Your task to perform on an android device: turn vacation reply on in the gmail app Image 0: 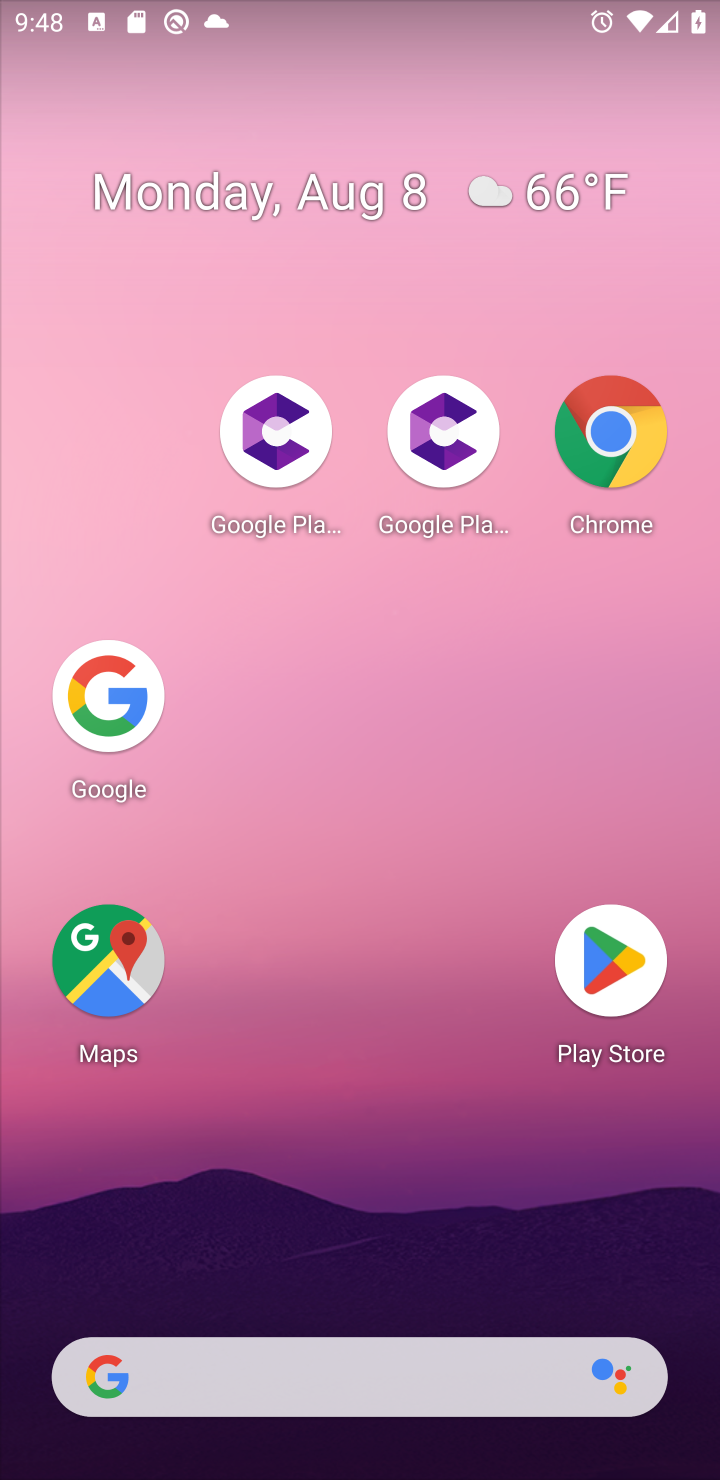
Step 0: drag from (268, 631) to (190, 99)
Your task to perform on an android device: turn vacation reply on in the gmail app Image 1: 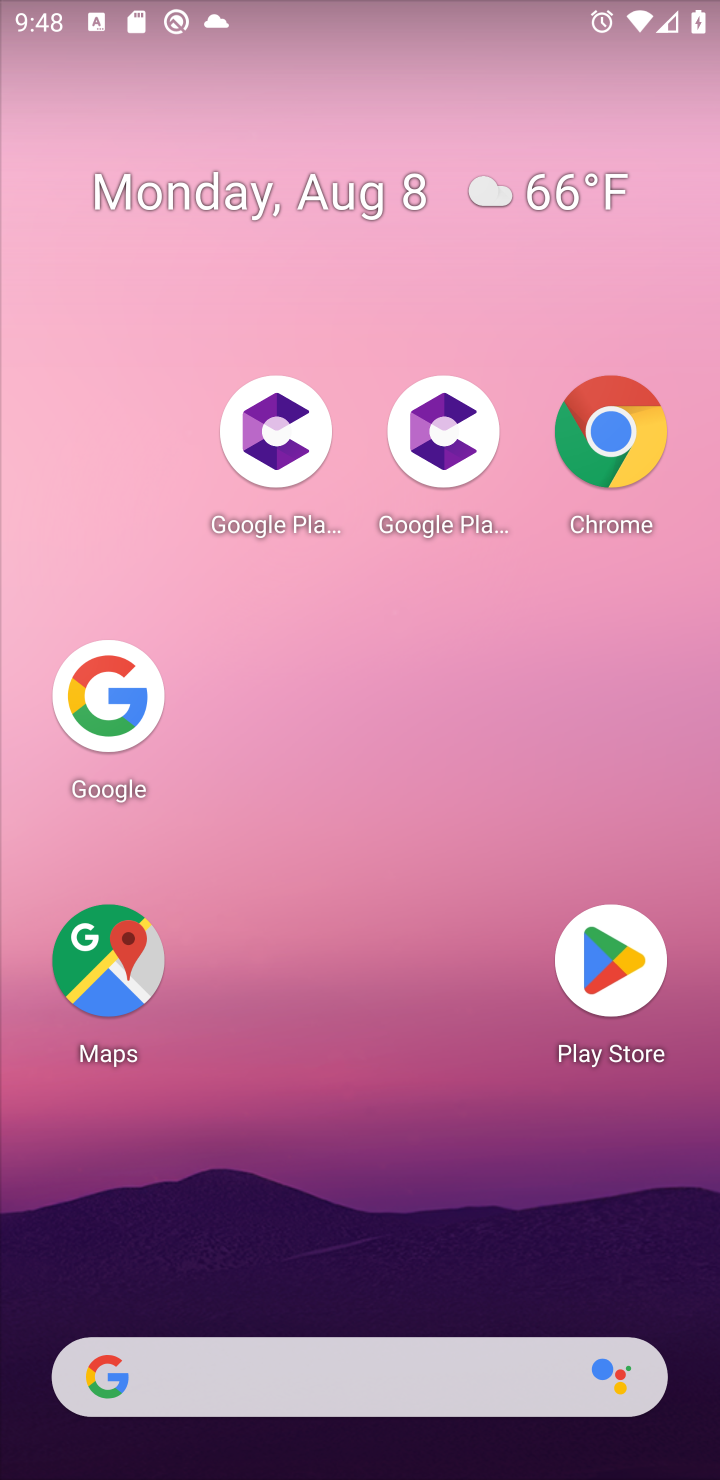
Step 1: drag from (288, 1277) to (324, 320)
Your task to perform on an android device: turn vacation reply on in the gmail app Image 2: 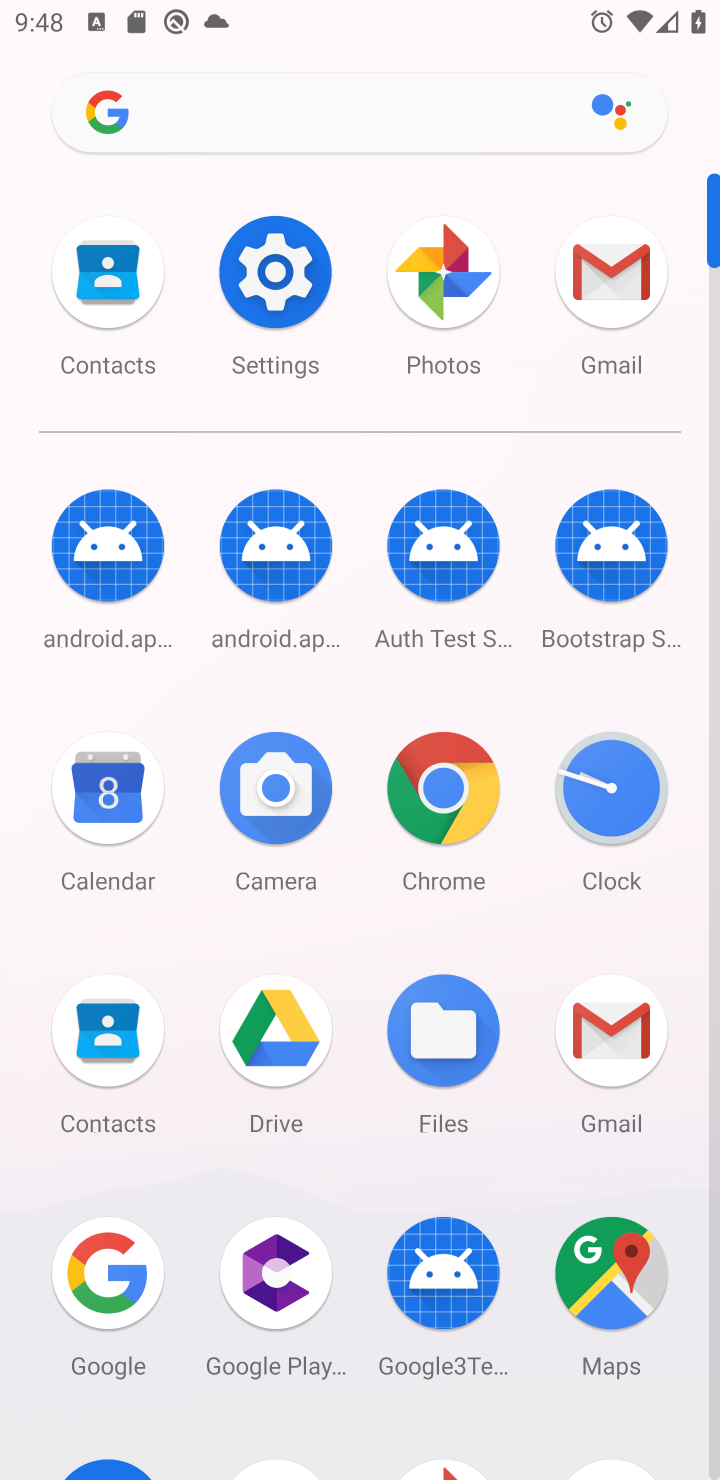
Step 2: click (610, 287)
Your task to perform on an android device: turn vacation reply on in the gmail app Image 3: 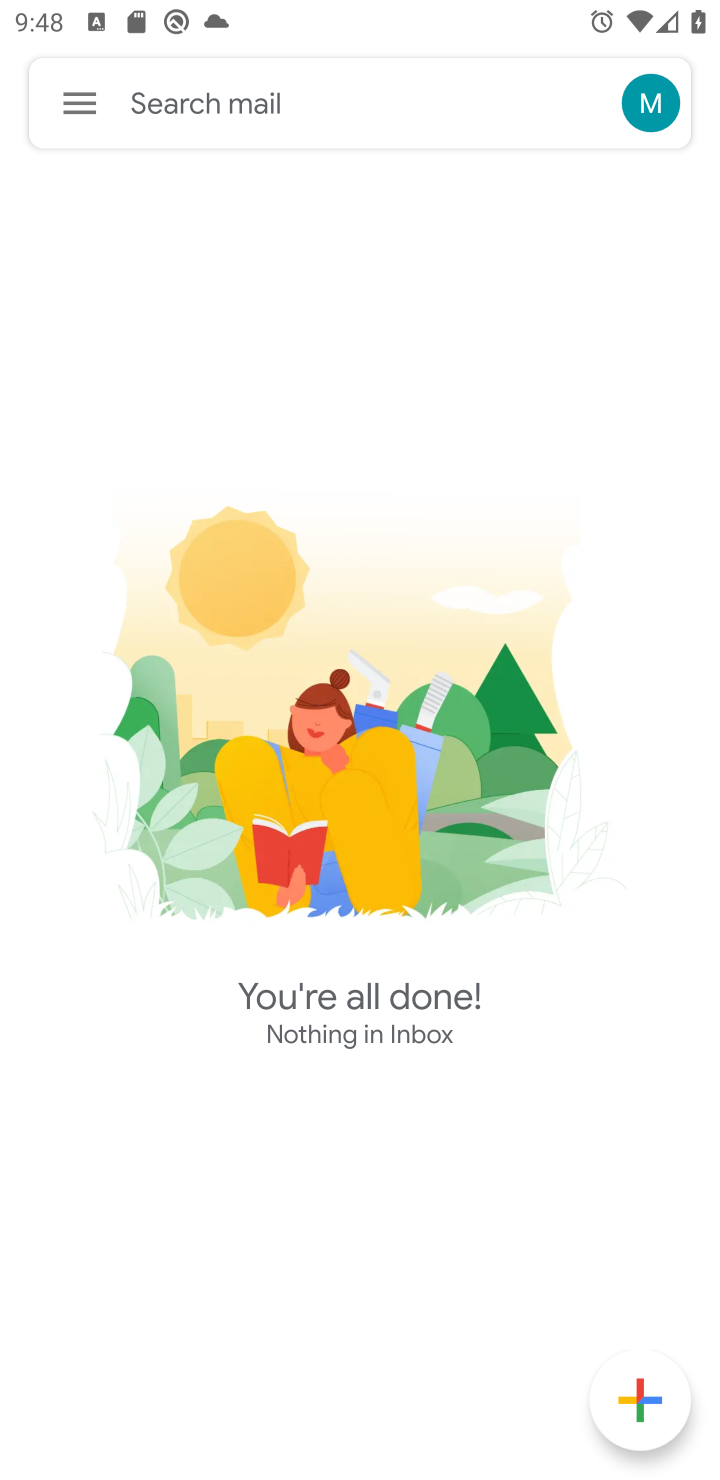
Step 3: click (98, 95)
Your task to perform on an android device: turn vacation reply on in the gmail app Image 4: 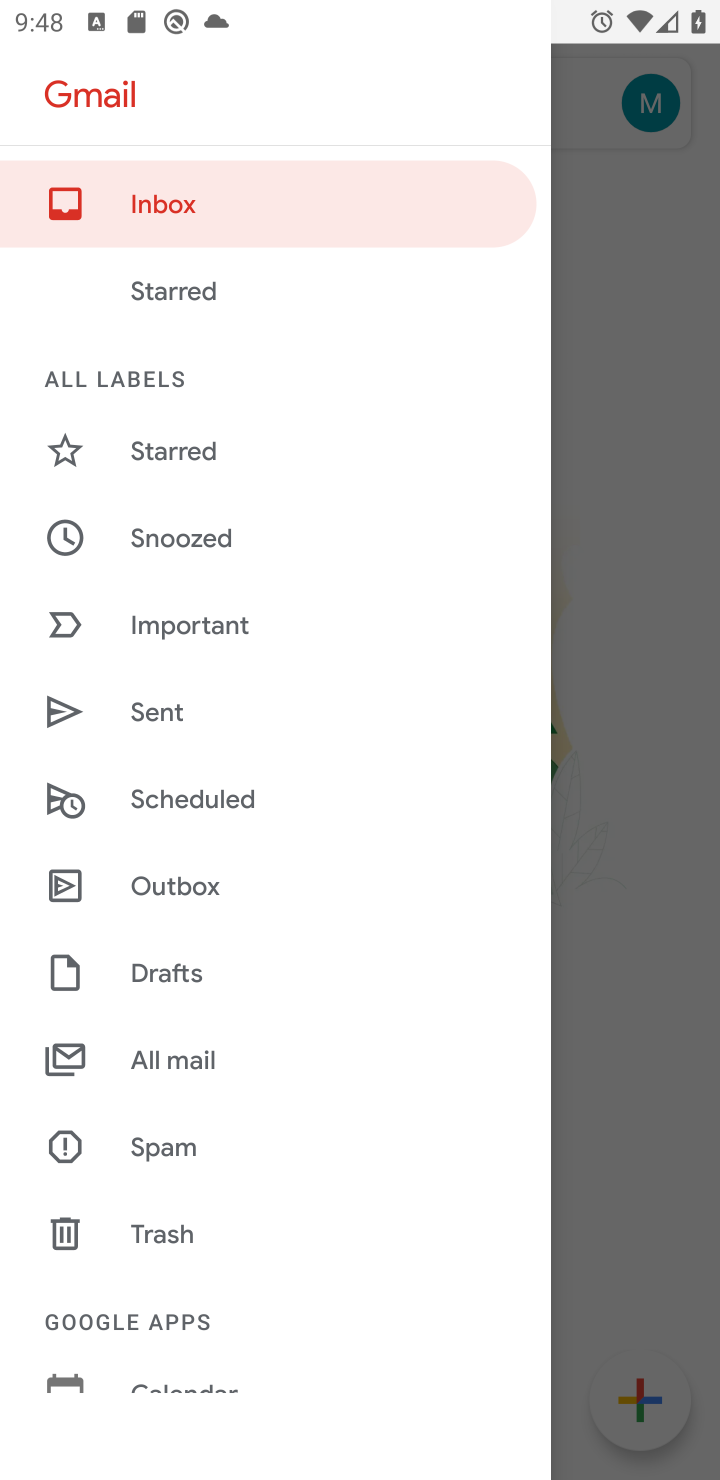
Step 4: drag from (154, 1335) to (195, 596)
Your task to perform on an android device: turn vacation reply on in the gmail app Image 5: 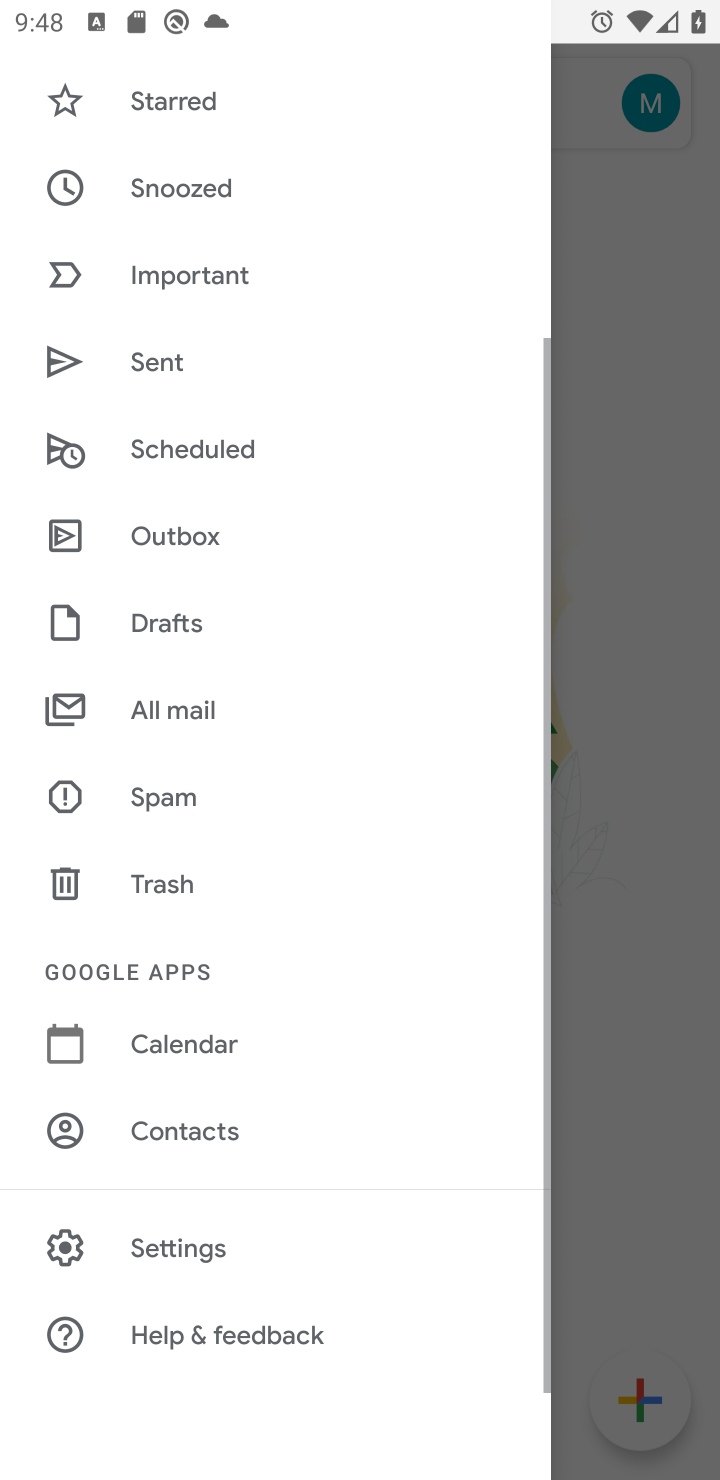
Step 5: click (206, 1254)
Your task to perform on an android device: turn vacation reply on in the gmail app Image 6: 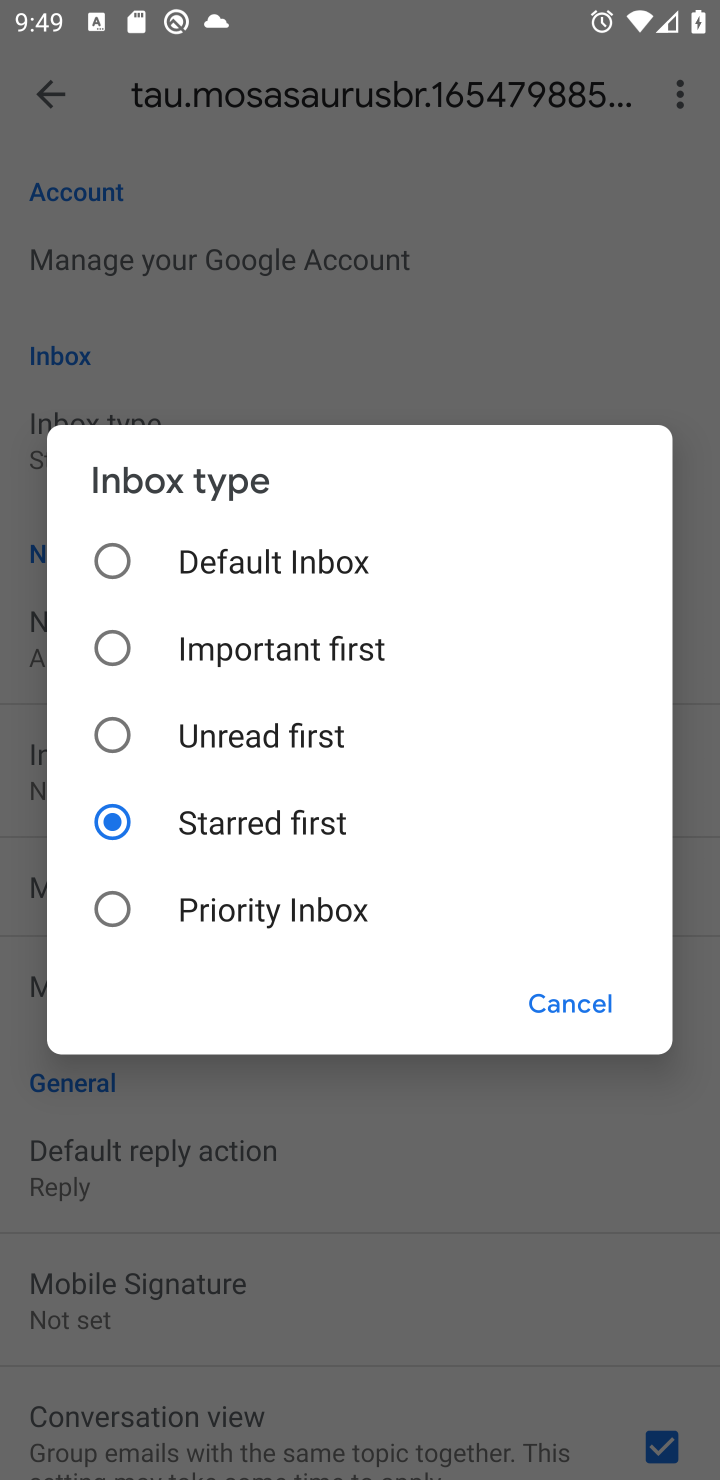
Step 6: click (206, 1254)
Your task to perform on an android device: turn vacation reply on in the gmail app Image 7: 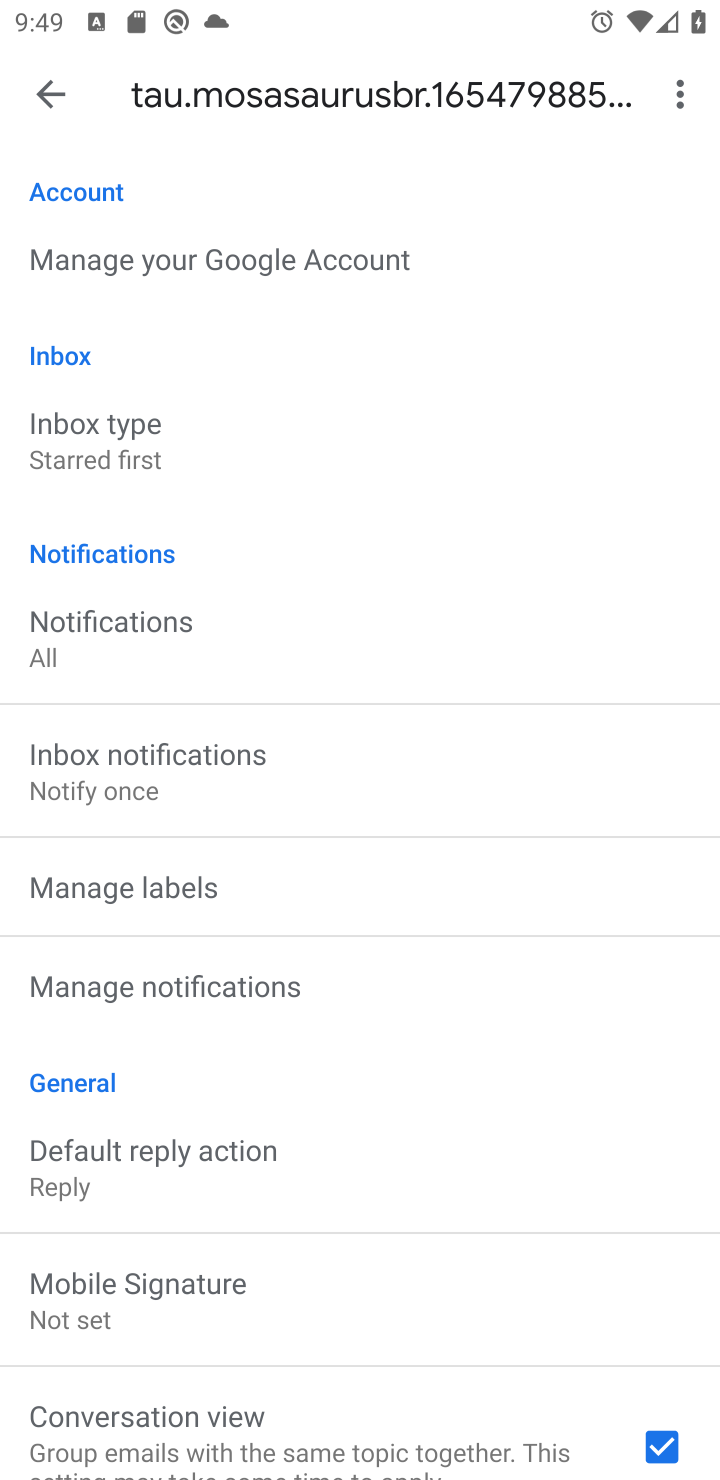
Step 7: drag from (253, 1286) to (243, 477)
Your task to perform on an android device: turn vacation reply on in the gmail app Image 8: 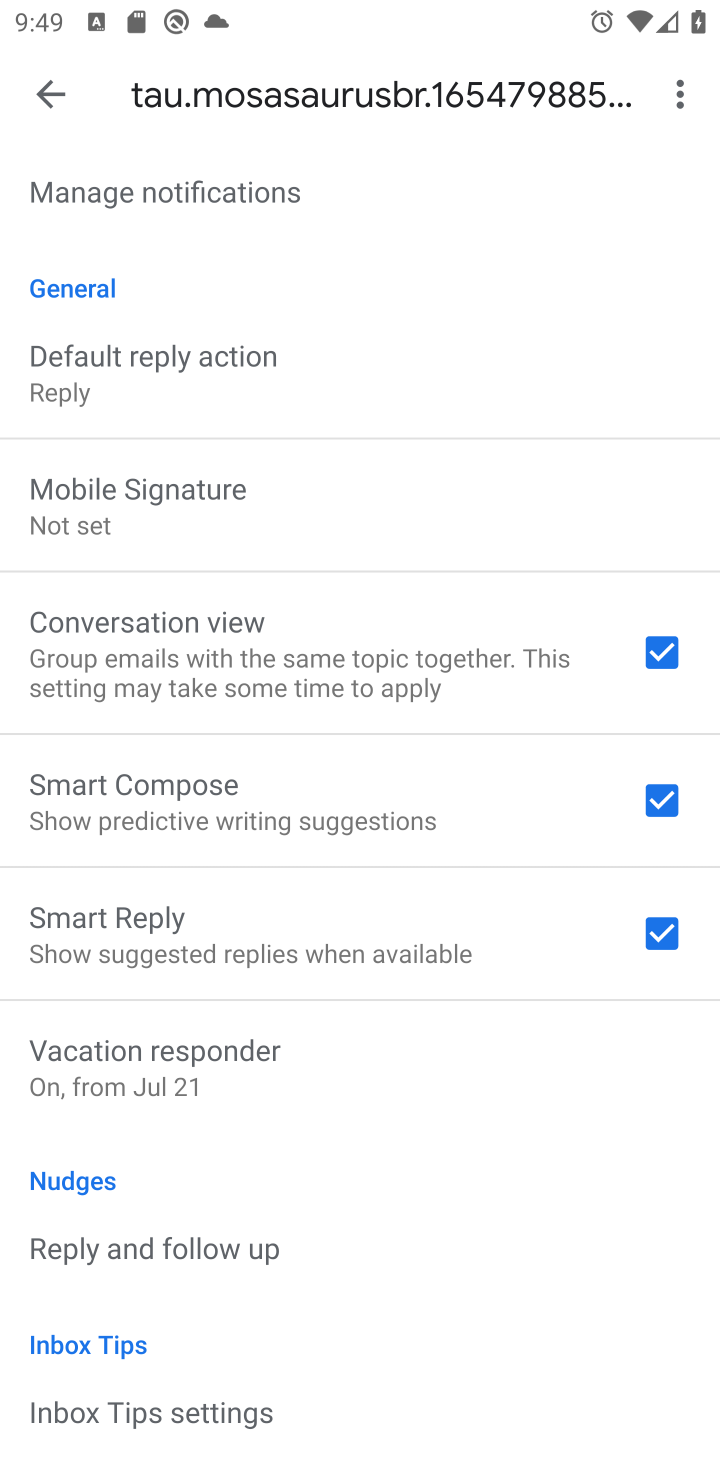
Step 8: click (367, 1073)
Your task to perform on an android device: turn vacation reply on in the gmail app Image 9: 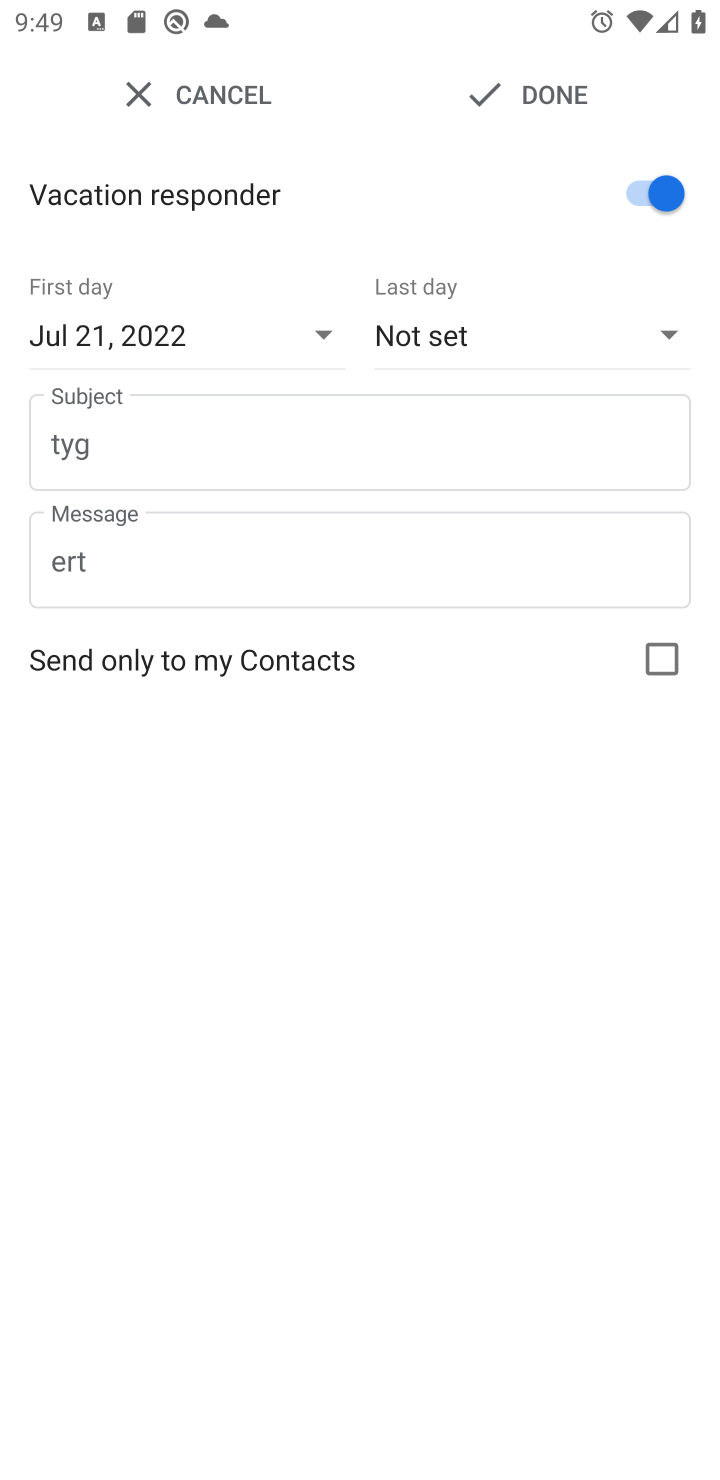
Step 9: click (567, 94)
Your task to perform on an android device: turn vacation reply on in the gmail app Image 10: 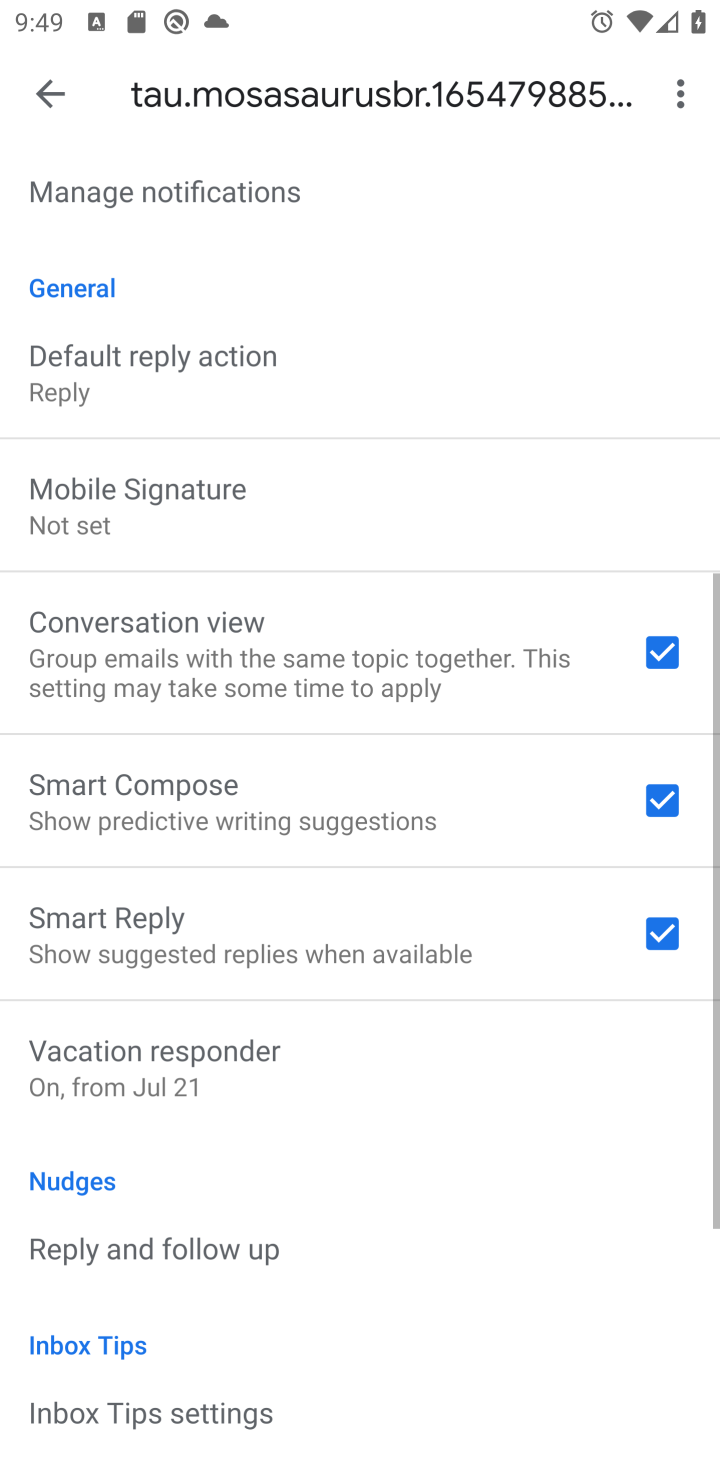
Step 10: task complete